Your task to perform on an android device: turn off notifications settings in the gmail app Image 0: 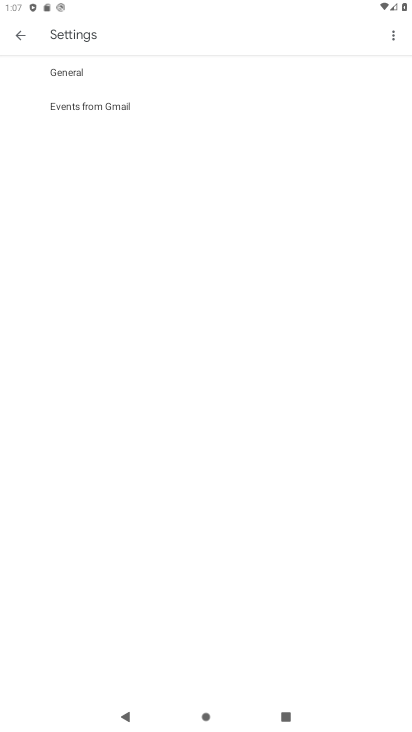
Step 0: press home button
Your task to perform on an android device: turn off notifications settings in the gmail app Image 1: 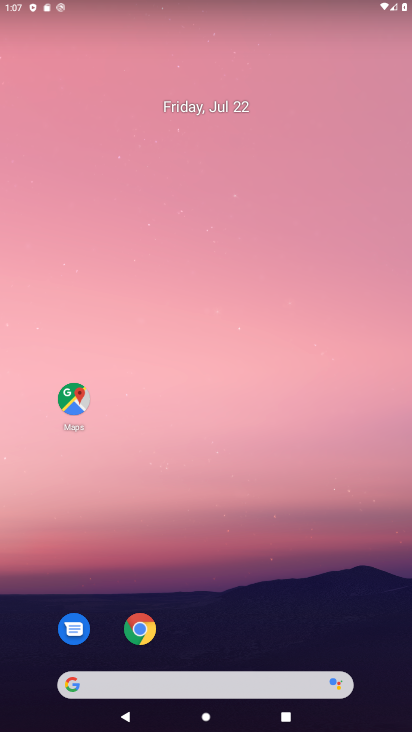
Step 1: drag from (279, 603) to (282, 168)
Your task to perform on an android device: turn off notifications settings in the gmail app Image 2: 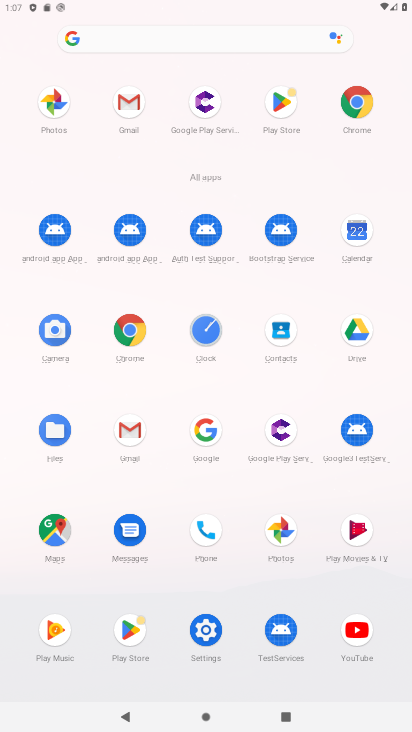
Step 2: click (133, 441)
Your task to perform on an android device: turn off notifications settings in the gmail app Image 3: 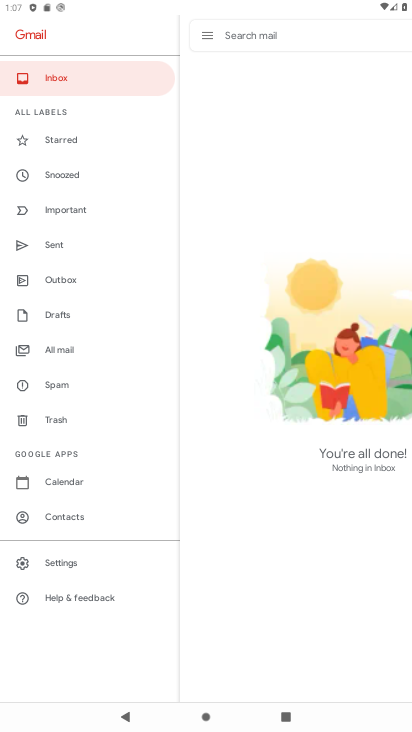
Step 3: click (83, 566)
Your task to perform on an android device: turn off notifications settings in the gmail app Image 4: 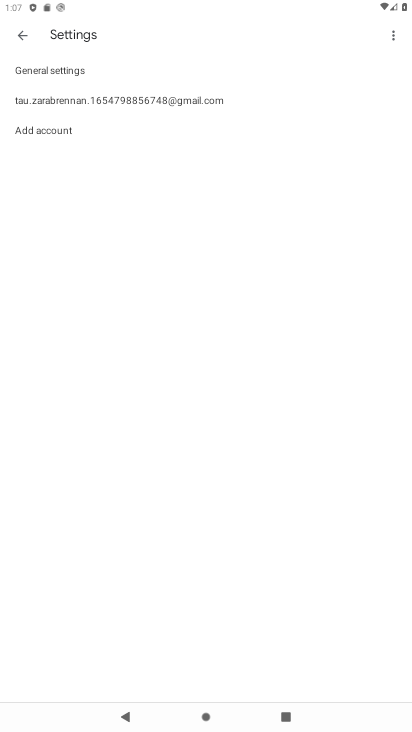
Step 4: click (168, 110)
Your task to perform on an android device: turn off notifications settings in the gmail app Image 5: 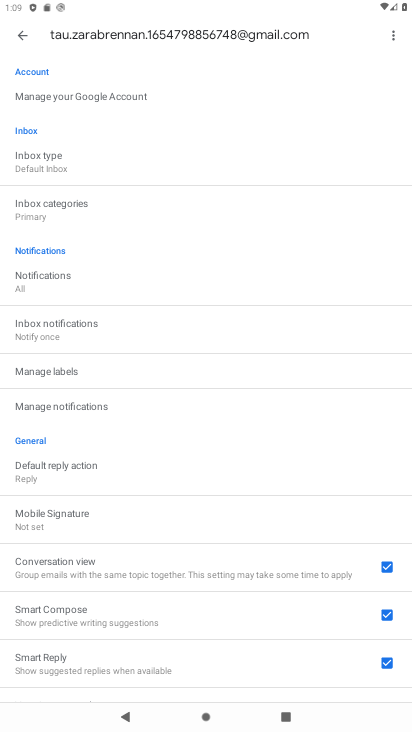
Step 5: click (68, 416)
Your task to perform on an android device: turn off notifications settings in the gmail app Image 6: 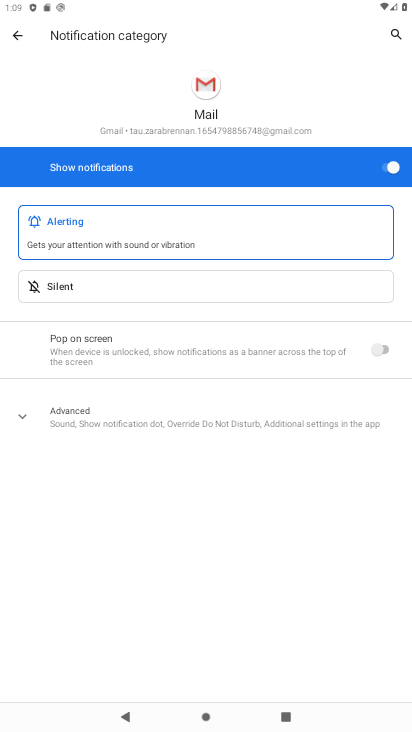
Step 6: click (403, 166)
Your task to perform on an android device: turn off notifications settings in the gmail app Image 7: 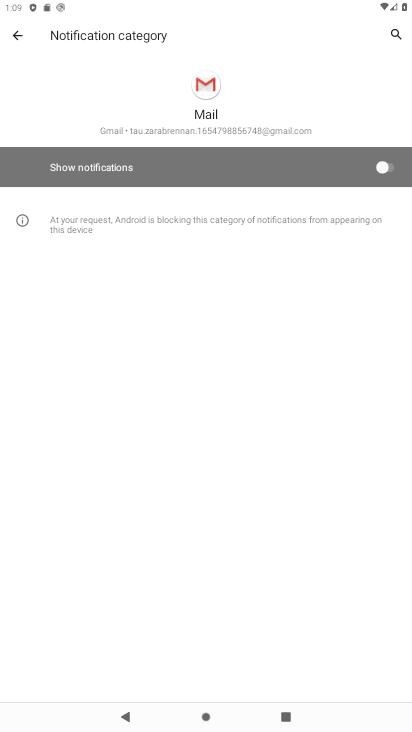
Step 7: task complete